Your task to perform on an android device: Turn on the flashlight Image 0: 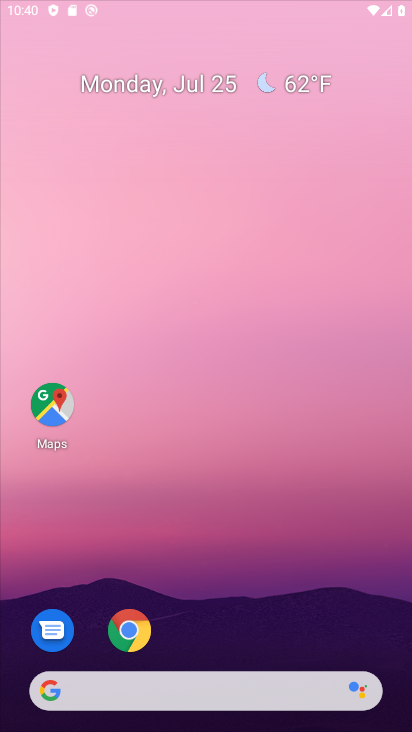
Step 0: click (260, 145)
Your task to perform on an android device: Turn on the flashlight Image 1: 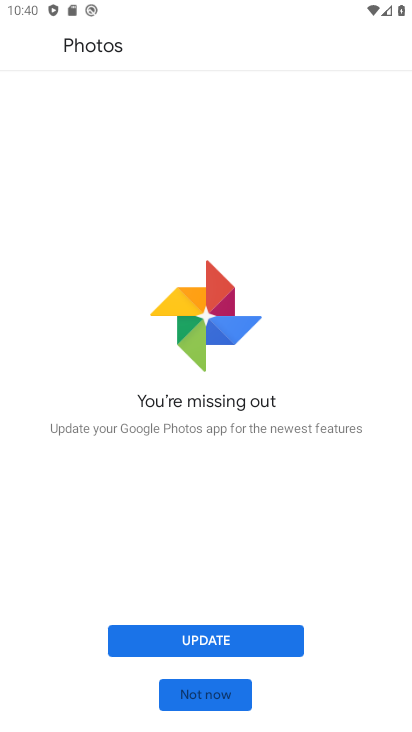
Step 1: click (179, 706)
Your task to perform on an android device: Turn on the flashlight Image 2: 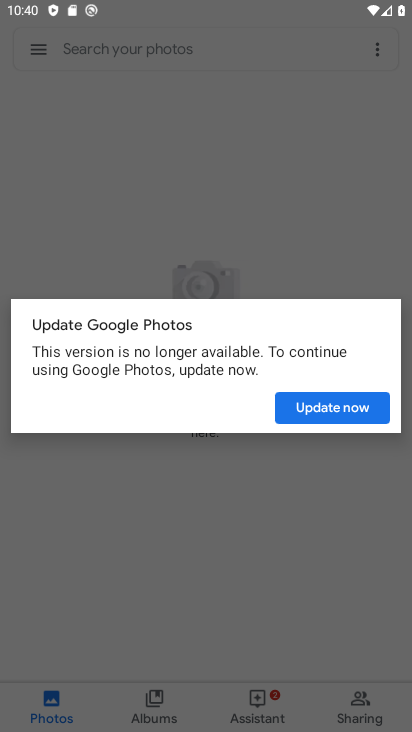
Step 2: press home button
Your task to perform on an android device: Turn on the flashlight Image 3: 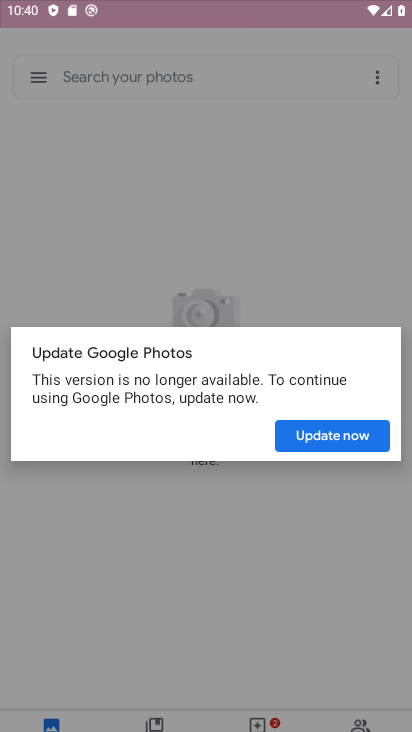
Step 3: drag from (164, 500) to (80, 7)
Your task to perform on an android device: Turn on the flashlight Image 4: 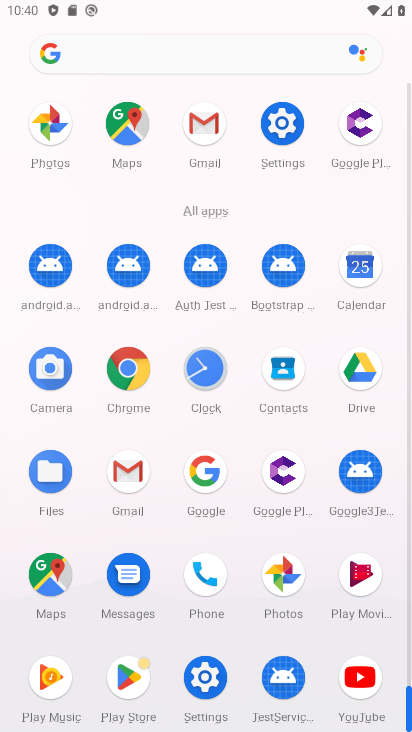
Step 4: click (271, 127)
Your task to perform on an android device: Turn on the flashlight Image 5: 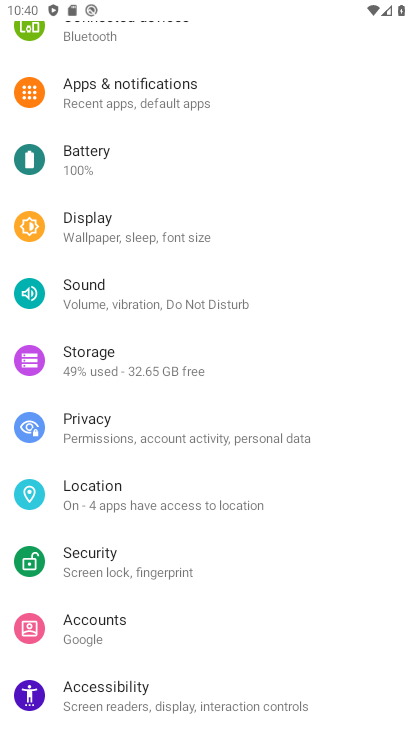
Step 5: drag from (133, 105) to (235, 718)
Your task to perform on an android device: Turn on the flashlight Image 6: 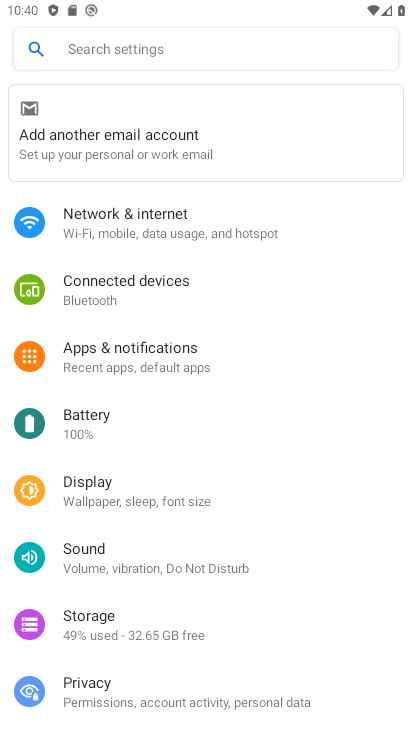
Step 6: click (114, 66)
Your task to perform on an android device: Turn on the flashlight Image 7: 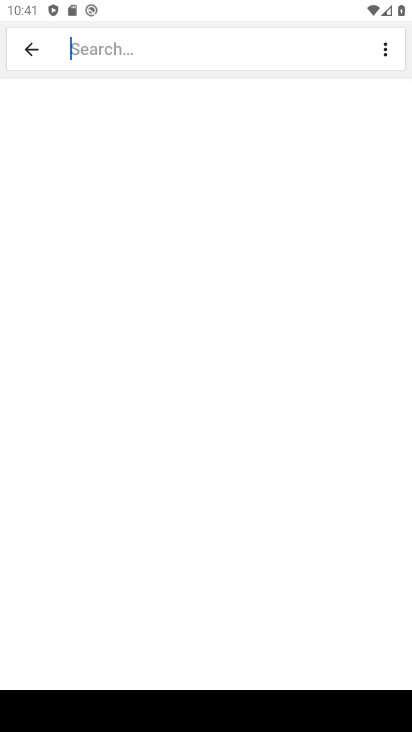
Step 7: type "flashlight"
Your task to perform on an android device: Turn on the flashlight Image 8: 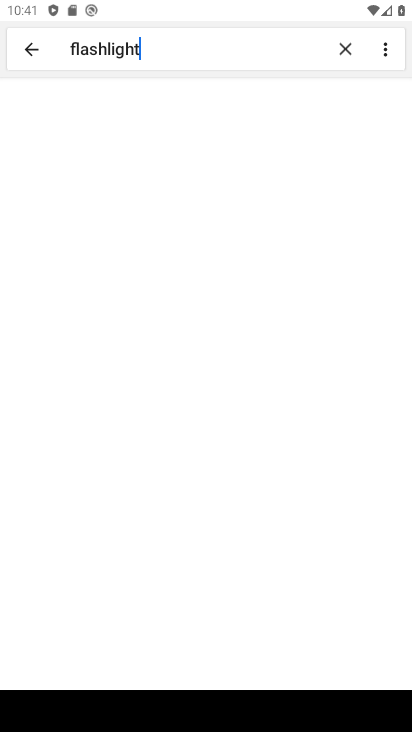
Step 8: type ""
Your task to perform on an android device: Turn on the flashlight Image 9: 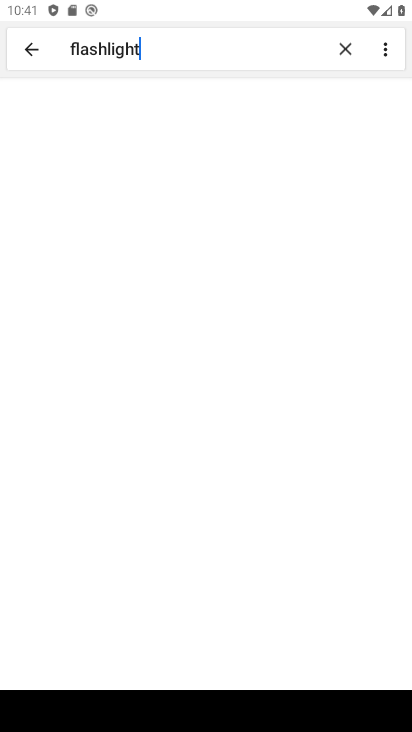
Step 9: click (215, 111)
Your task to perform on an android device: Turn on the flashlight Image 10: 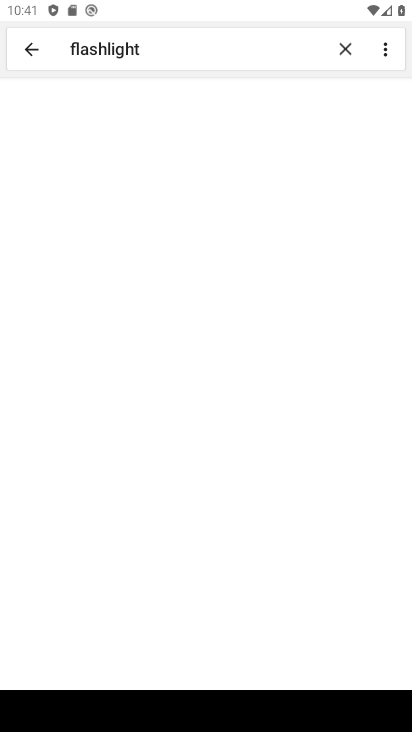
Step 10: click (216, 111)
Your task to perform on an android device: Turn on the flashlight Image 11: 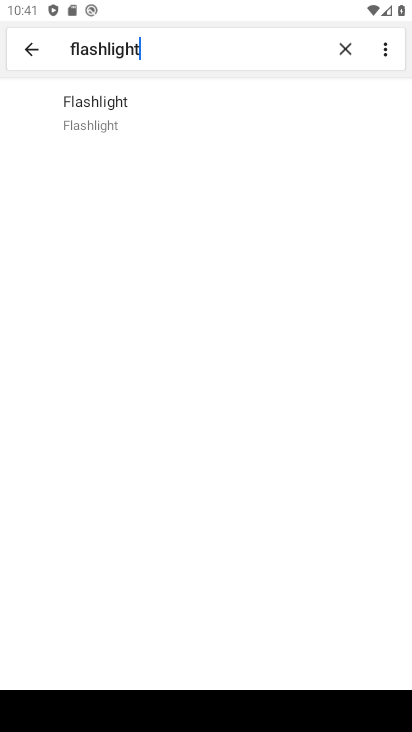
Step 11: click (210, 108)
Your task to perform on an android device: Turn on the flashlight Image 12: 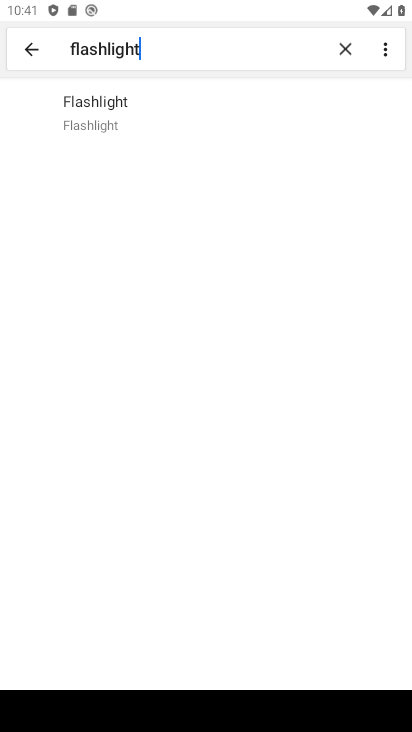
Step 12: task complete